Your task to perform on an android device: Find coffee shops on Maps Image 0: 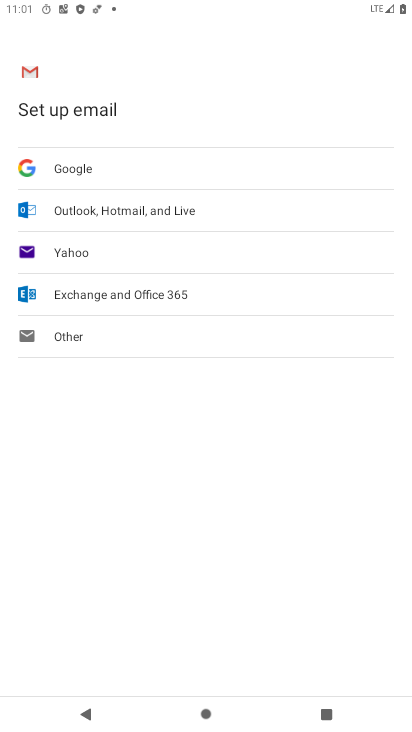
Step 0: press home button
Your task to perform on an android device: Find coffee shops on Maps Image 1: 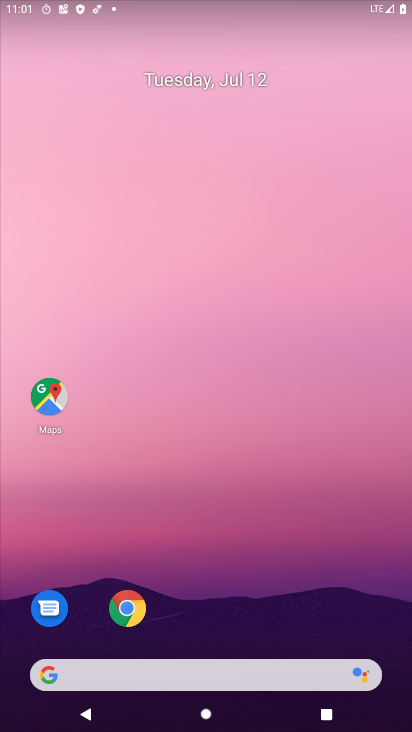
Step 1: click (50, 409)
Your task to perform on an android device: Find coffee shops on Maps Image 2: 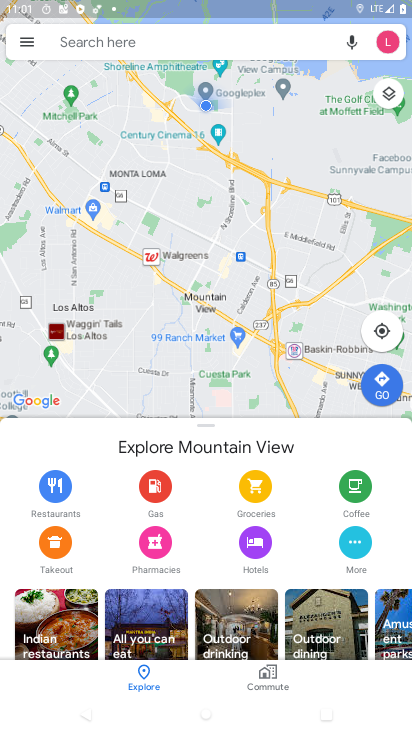
Step 2: click (242, 32)
Your task to perform on an android device: Find coffee shops on Maps Image 3: 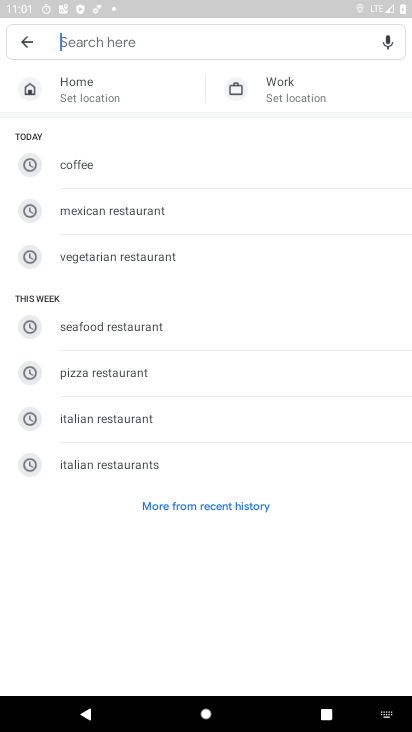
Step 3: type "coffee shops"
Your task to perform on an android device: Find coffee shops on Maps Image 4: 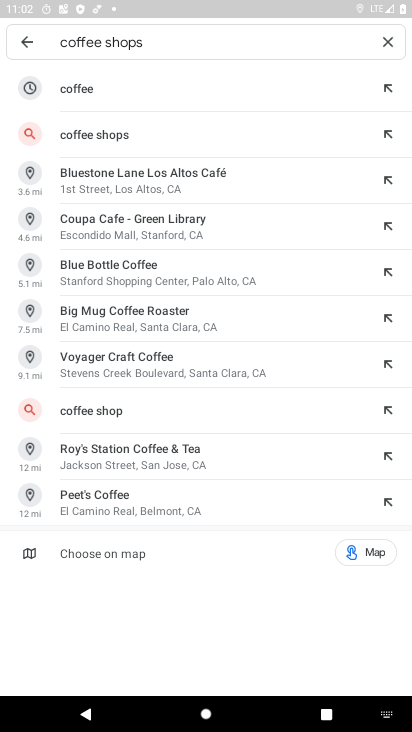
Step 4: click (247, 133)
Your task to perform on an android device: Find coffee shops on Maps Image 5: 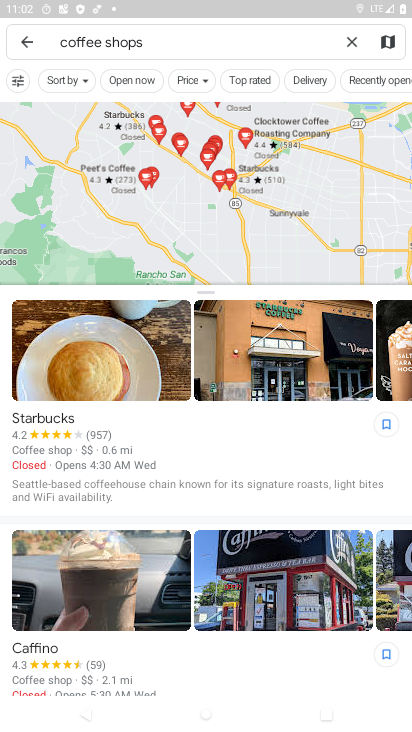
Step 5: task complete